Your task to perform on an android device: turn off improve location accuracy Image 0: 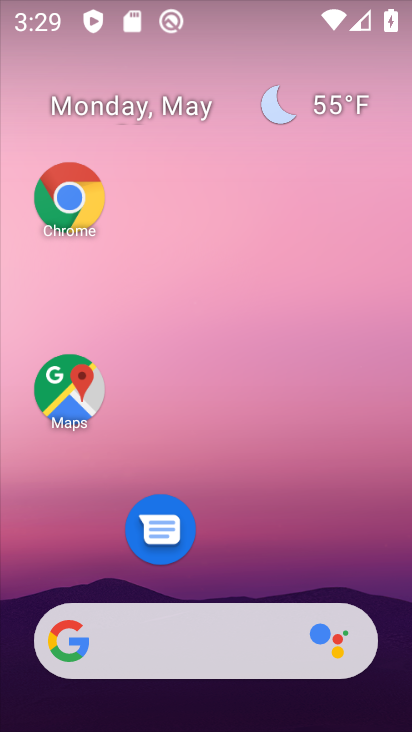
Step 0: drag from (240, 662) to (232, 6)
Your task to perform on an android device: turn off improve location accuracy Image 1: 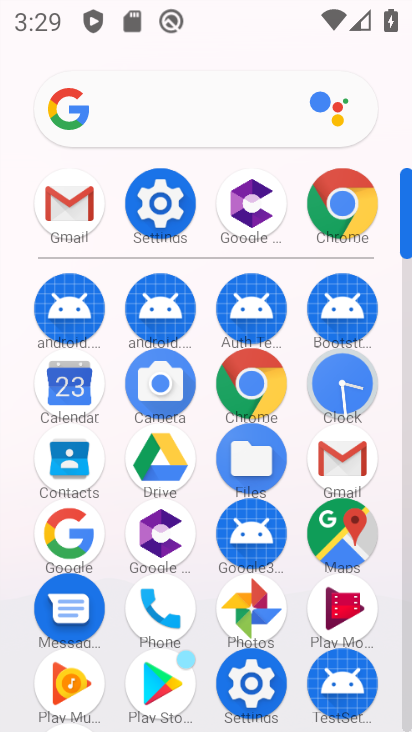
Step 1: click (169, 220)
Your task to perform on an android device: turn off improve location accuracy Image 2: 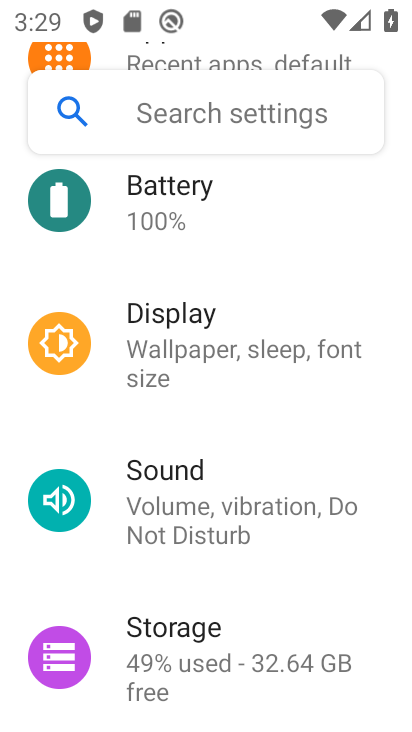
Step 2: drag from (170, 325) to (207, 731)
Your task to perform on an android device: turn off improve location accuracy Image 3: 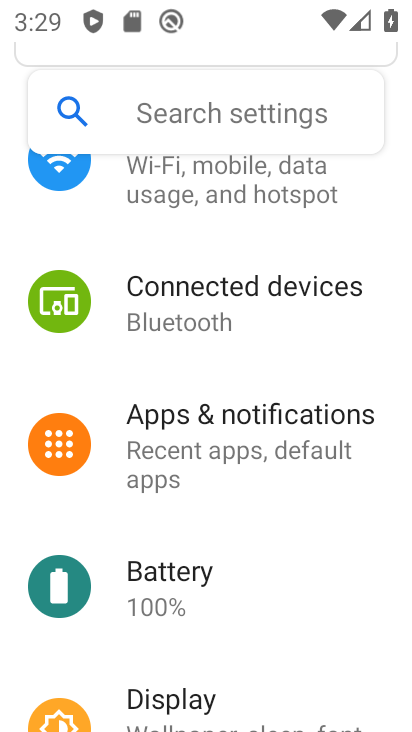
Step 3: drag from (157, 601) to (86, 85)
Your task to perform on an android device: turn off improve location accuracy Image 4: 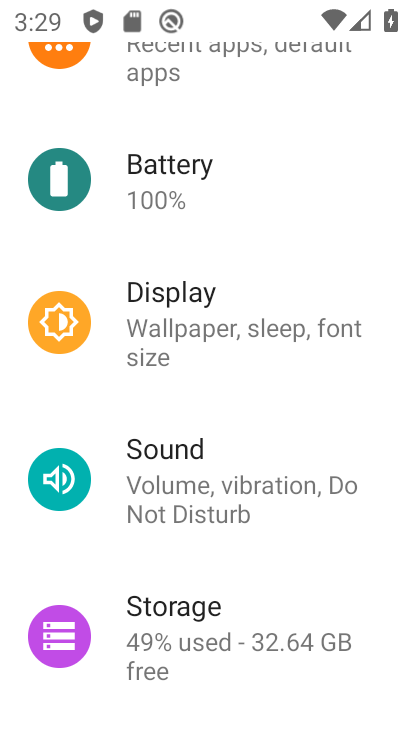
Step 4: drag from (255, 519) to (246, 21)
Your task to perform on an android device: turn off improve location accuracy Image 5: 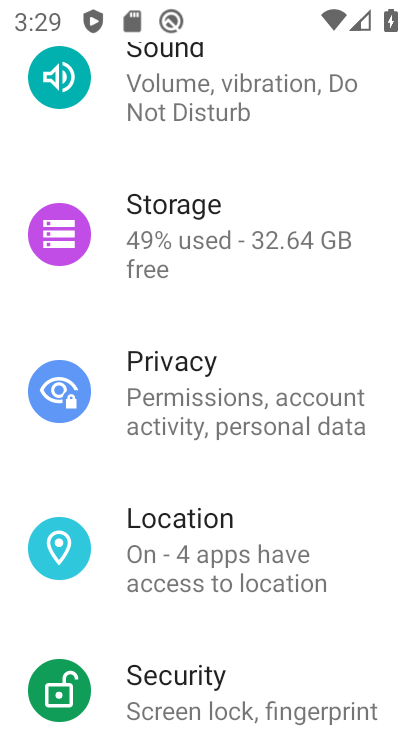
Step 5: click (132, 556)
Your task to perform on an android device: turn off improve location accuracy Image 6: 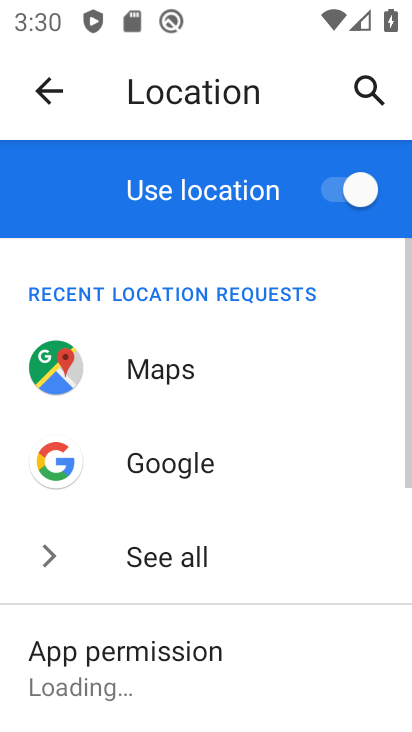
Step 6: drag from (140, 619) to (157, 202)
Your task to perform on an android device: turn off improve location accuracy Image 7: 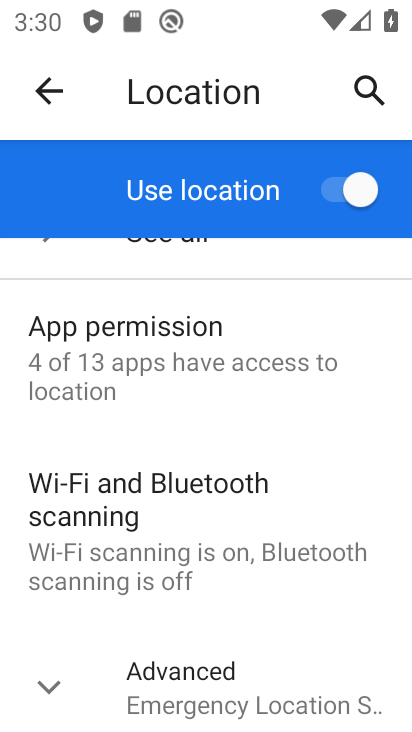
Step 7: click (216, 701)
Your task to perform on an android device: turn off improve location accuracy Image 8: 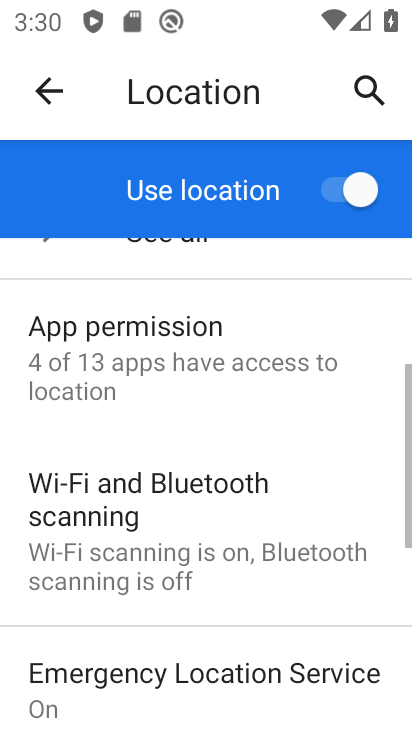
Step 8: drag from (199, 634) to (214, 3)
Your task to perform on an android device: turn off improve location accuracy Image 9: 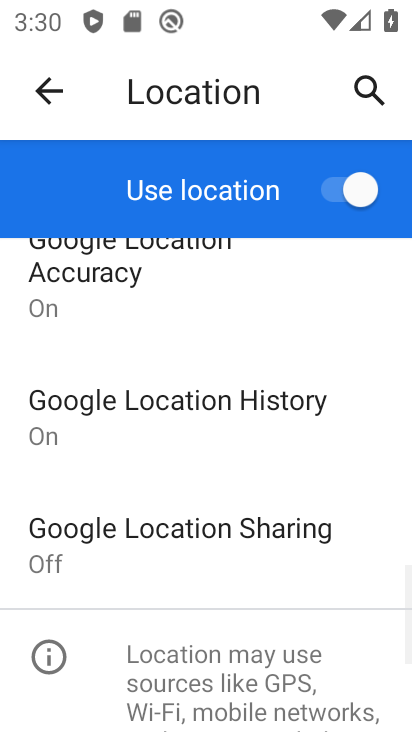
Step 9: click (208, 268)
Your task to perform on an android device: turn off improve location accuracy Image 10: 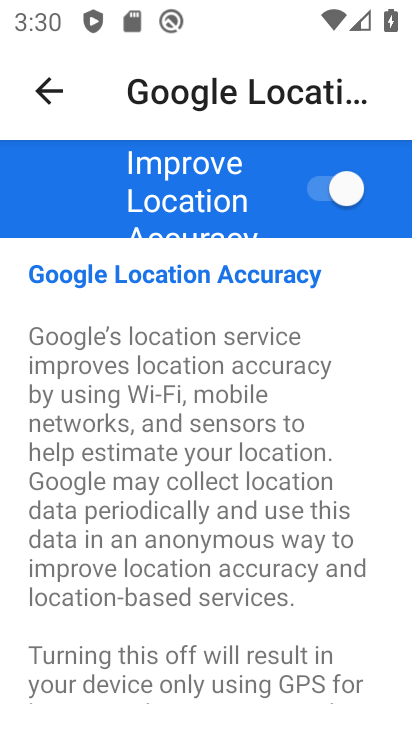
Step 10: click (303, 200)
Your task to perform on an android device: turn off improve location accuracy Image 11: 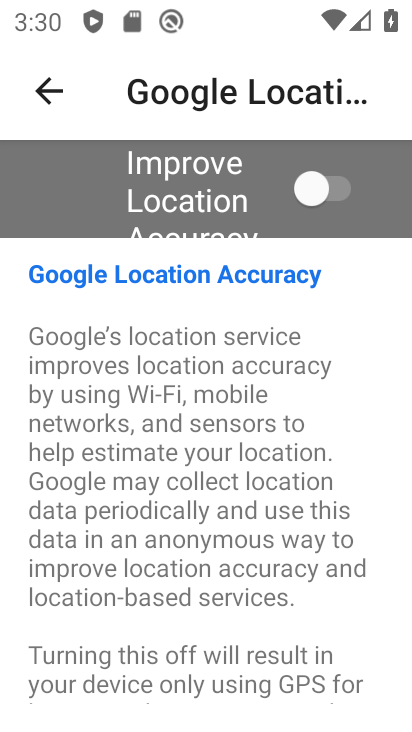
Step 11: task complete